Your task to perform on an android device: Go to notification settings Image 0: 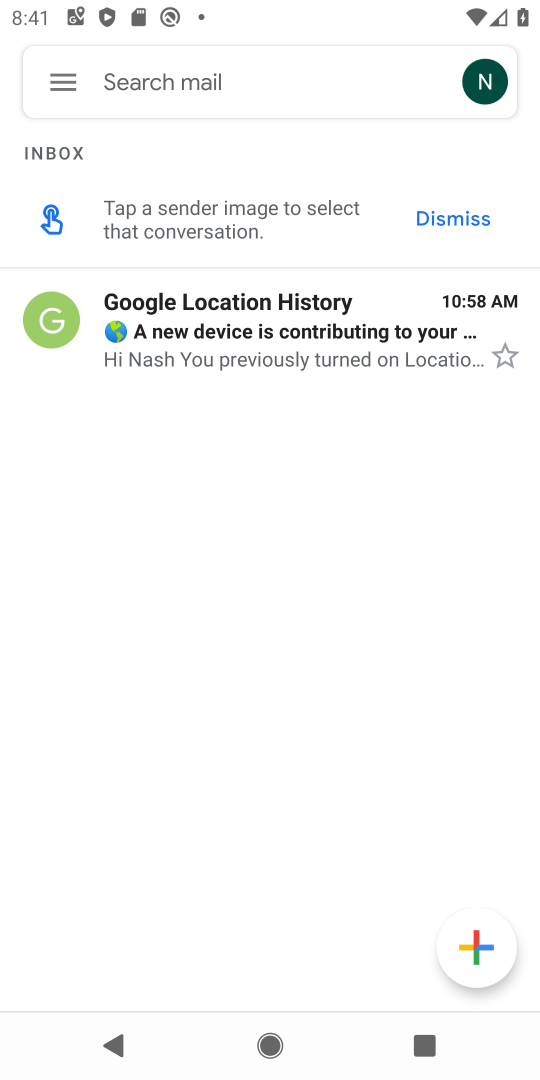
Step 0: press home button
Your task to perform on an android device: Go to notification settings Image 1: 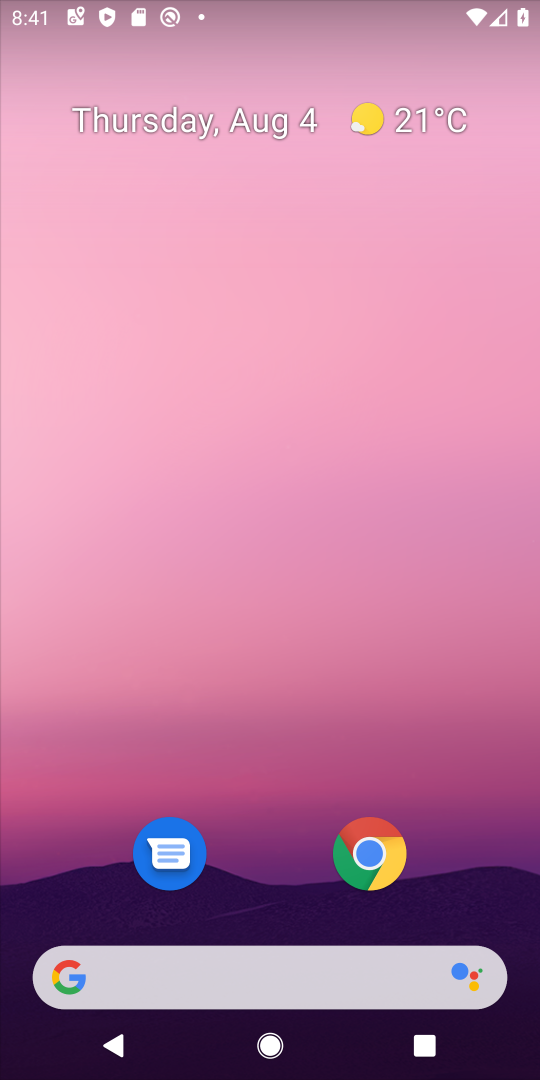
Step 1: drag from (247, 973) to (64, 402)
Your task to perform on an android device: Go to notification settings Image 2: 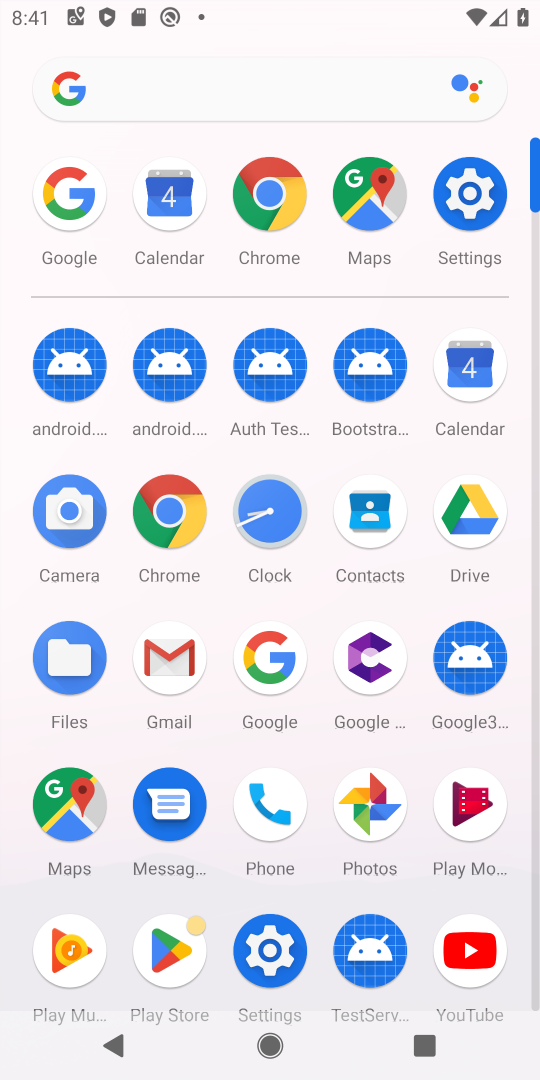
Step 2: click (454, 202)
Your task to perform on an android device: Go to notification settings Image 3: 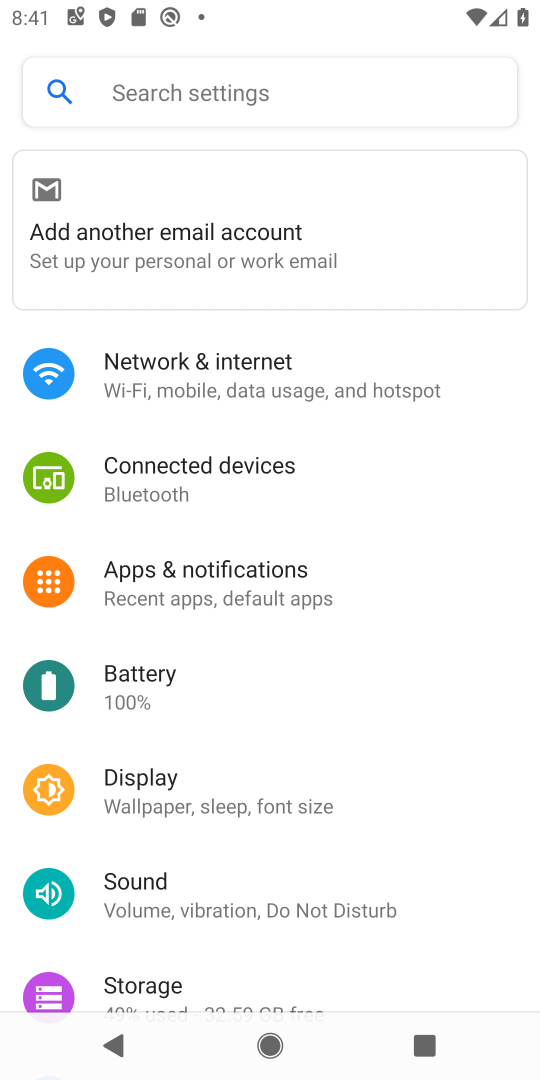
Step 3: click (232, 568)
Your task to perform on an android device: Go to notification settings Image 4: 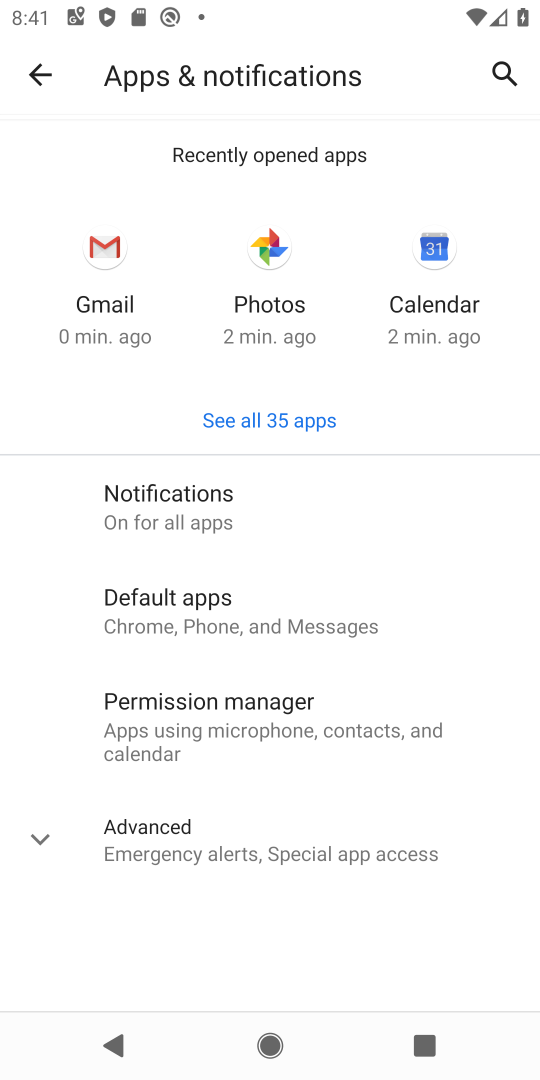
Step 4: click (221, 838)
Your task to perform on an android device: Go to notification settings Image 5: 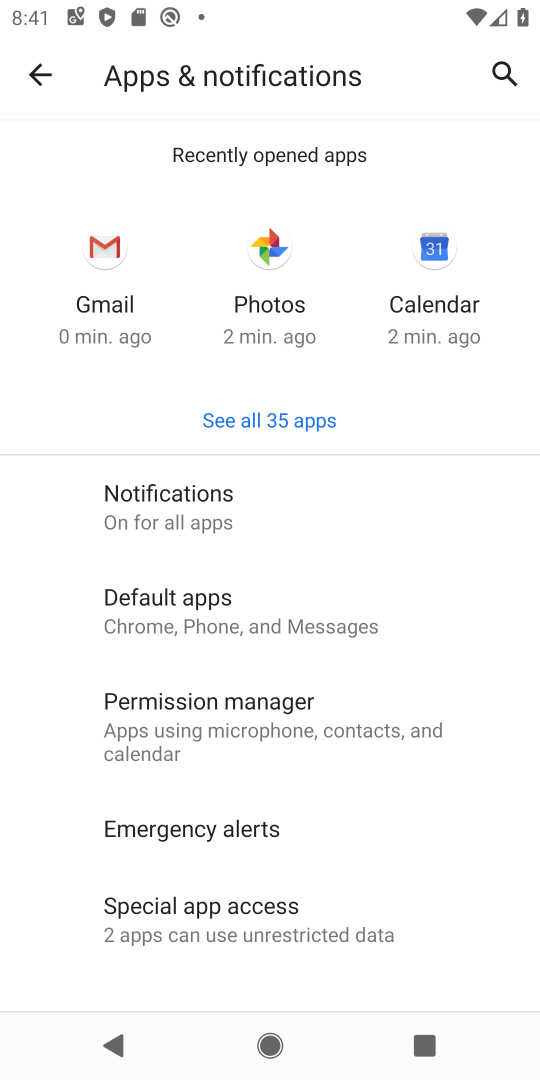
Step 5: task complete